Your task to perform on an android device: Check the news Image 0: 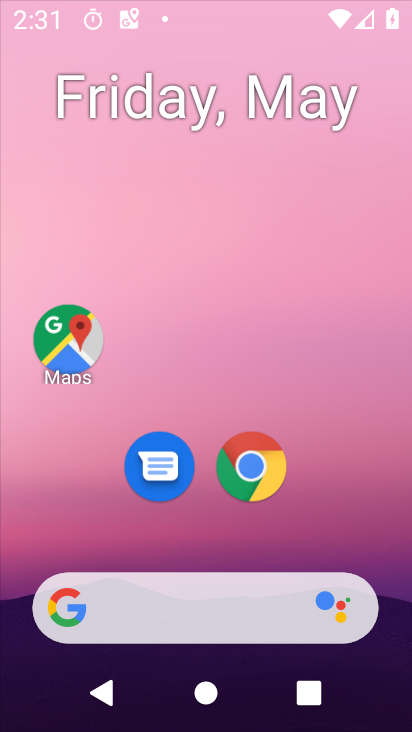
Step 0: drag from (328, 517) to (410, 212)
Your task to perform on an android device: Check the news Image 1: 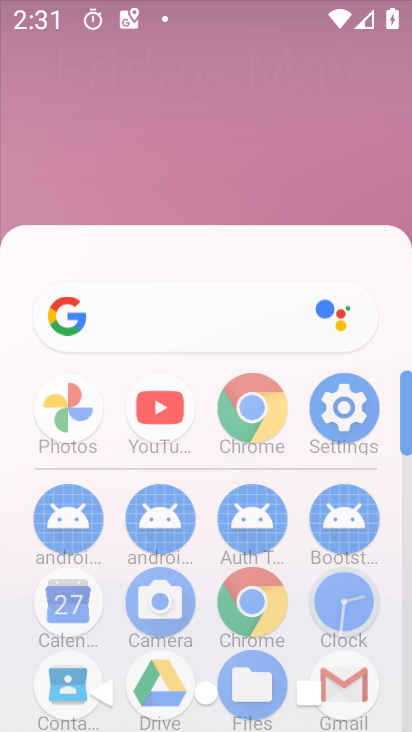
Step 1: press home button
Your task to perform on an android device: Check the news Image 2: 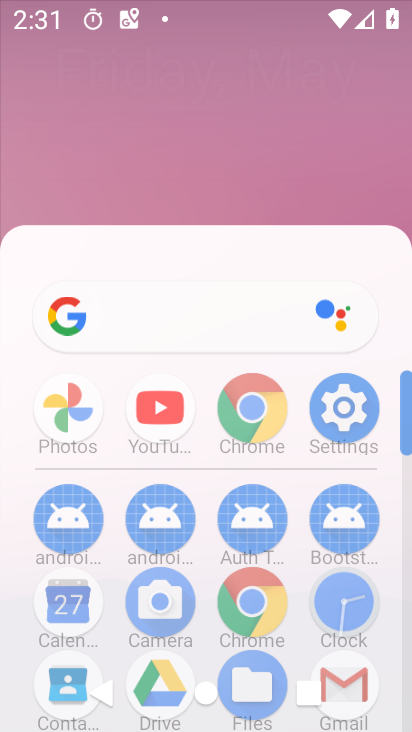
Step 2: drag from (410, 212) to (391, 375)
Your task to perform on an android device: Check the news Image 3: 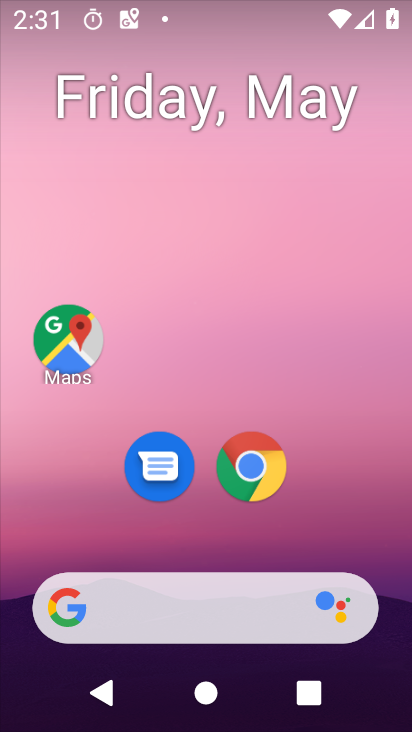
Step 3: drag from (343, 504) to (380, 4)
Your task to perform on an android device: Check the news Image 4: 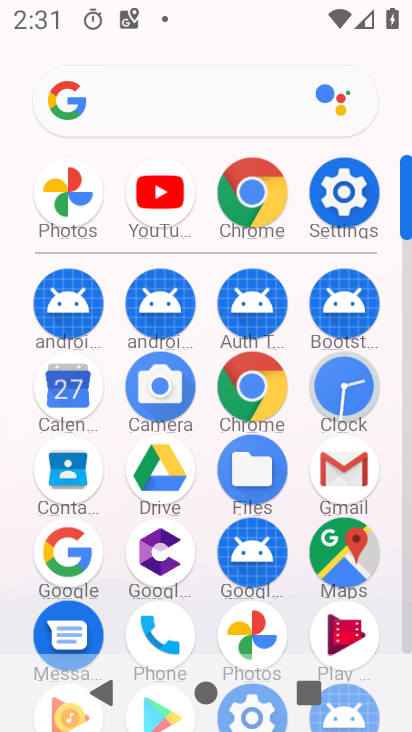
Step 4: click (248, 201)
Your task to perform on an android device: Check the news Image 5: 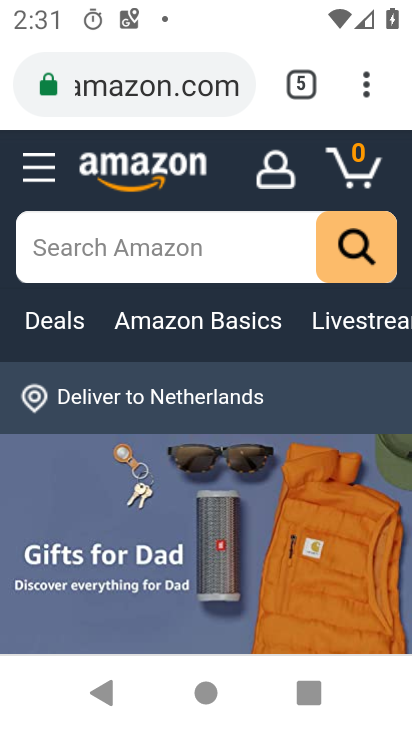
Step 5: task complete